Your task to perform on an android device: Open accessibility settings Image 0: 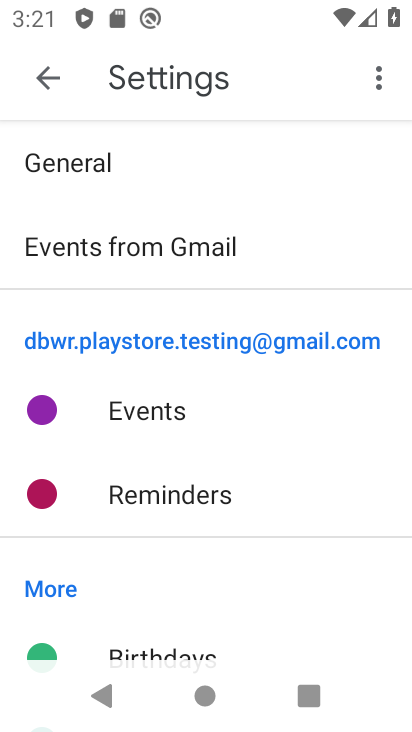
Step 0: press home button
Your task to perform on an android device: Open accessibility settings Image 1: 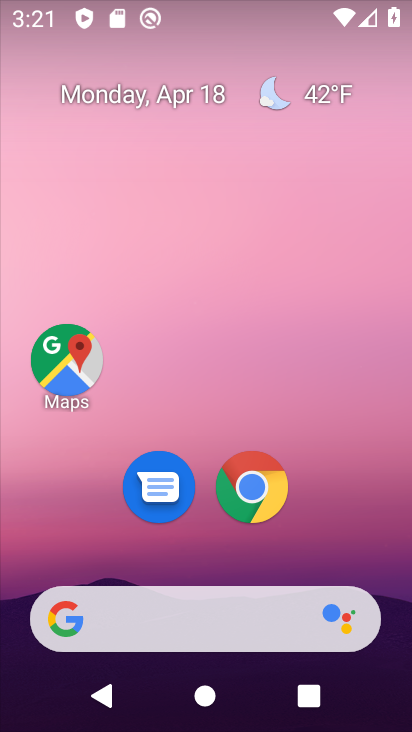
Step 1: drag from (231, 554) to (241, 98)
Your task to perform on an android device: Open accessibility settings Image 2: 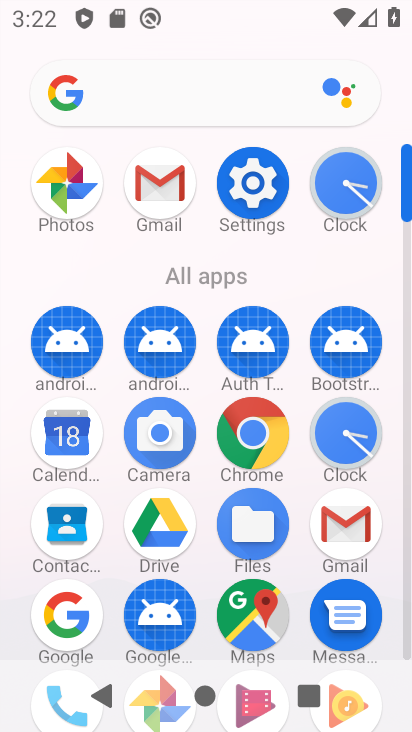
Step 2: click (250, 194)
Your task to perform on an android device: Open accessibility settings Image 3: 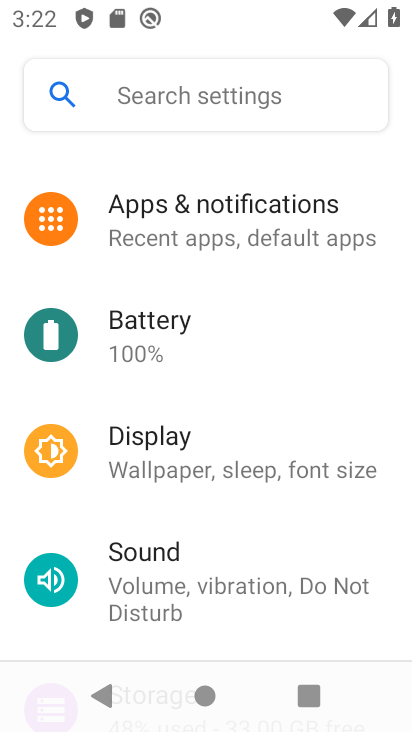
Step 3: drag from (252, 536) to (241, 193)
Your task to perform on an android device: Open accessibility settings Image 4: 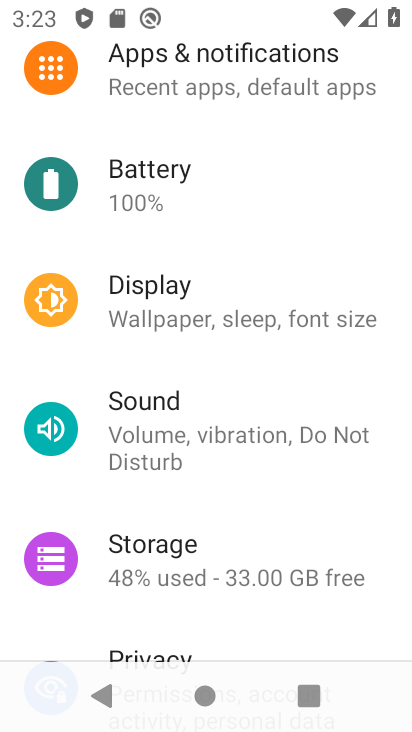
Step 4: drag from (268, 622) to (265, 151)
Your task to perform on an android device: Open accessibility settings Image 5: 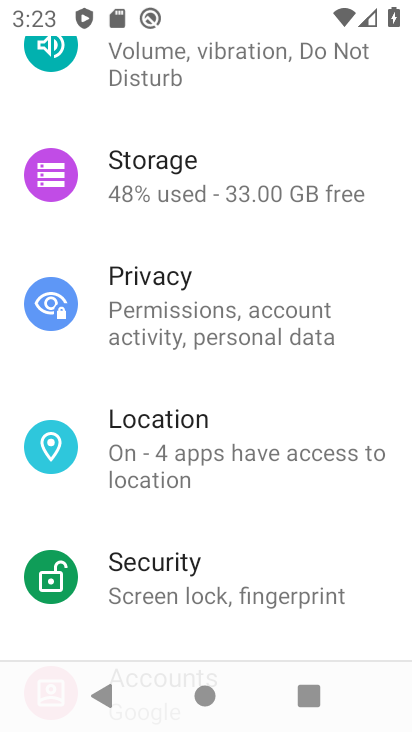
Step 5: drag from (262, 558) to (264, 207)
Your task to perform on an android device: Open accessibility settings Image 6: 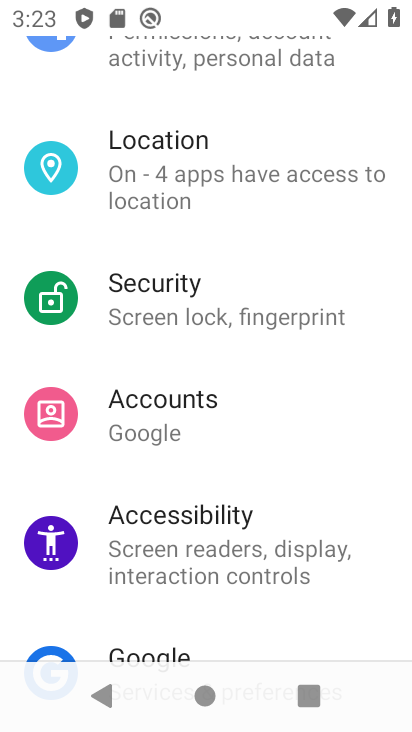
Step 6: click (254, 554)
Your task to perform on an android device: Open accessibility settings Image 7: 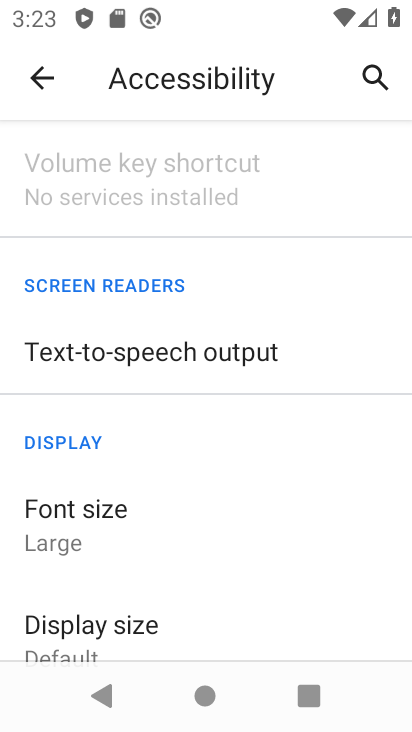
Step 7: task complete